Your task to perform on an android device: find photos in the google photos app Image 0: 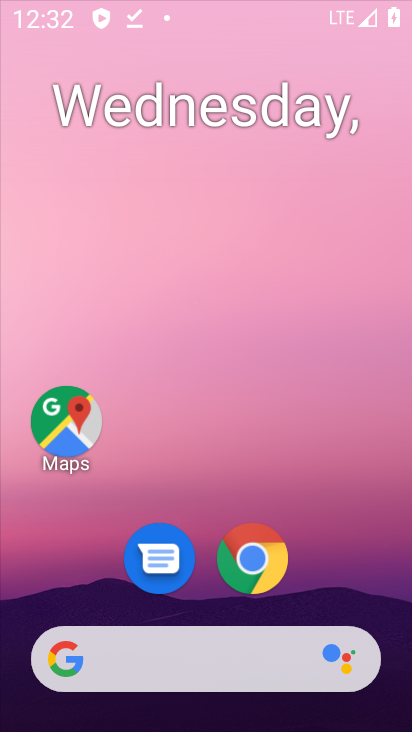
Step 0: click (296, 124)
Your task to perform on an android device: find photos in the google photos app Image 1: 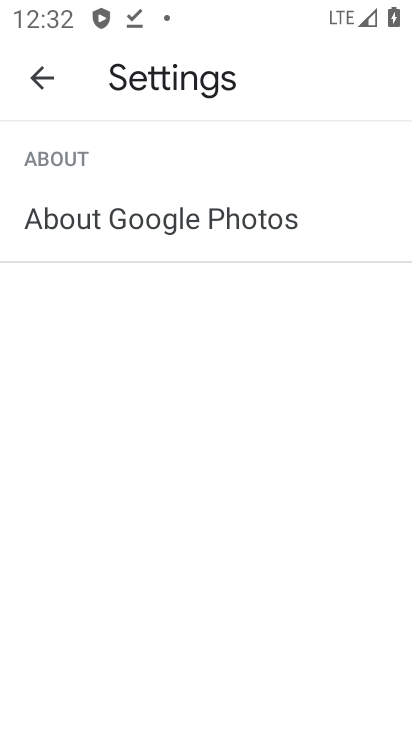
Step 1: click (37, 67)
Your task to perform on an android device: find photos in the google photos app Image 2: 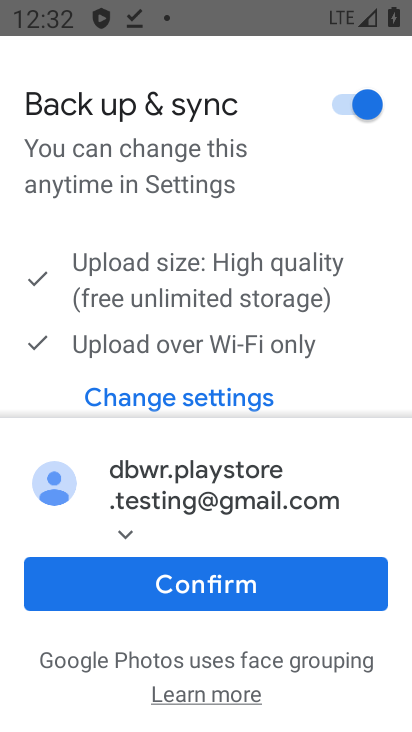
Step 2: press back button
Your task to perform on an android device: find photos in the google photos app Image 3: 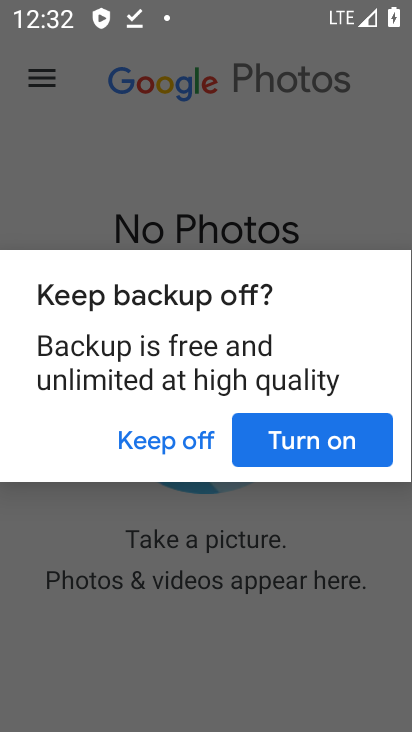
Step 3: click (148, 453)
Your task to perform on an android device: find photos in the google photos app Image 4: 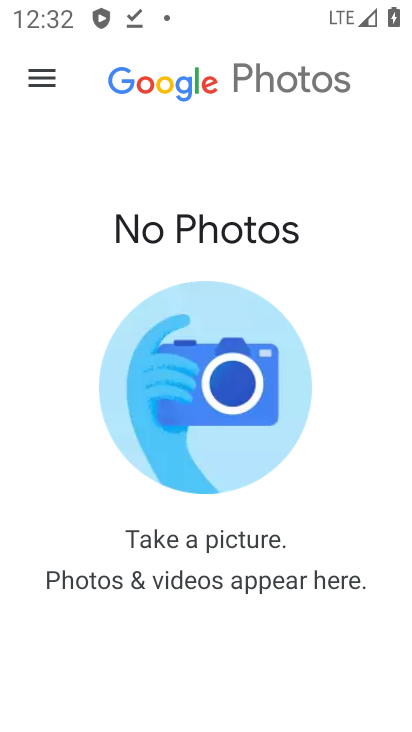
Step 4: press home button
Your task to perform on an android device: find photos in the google photos app Image 5: 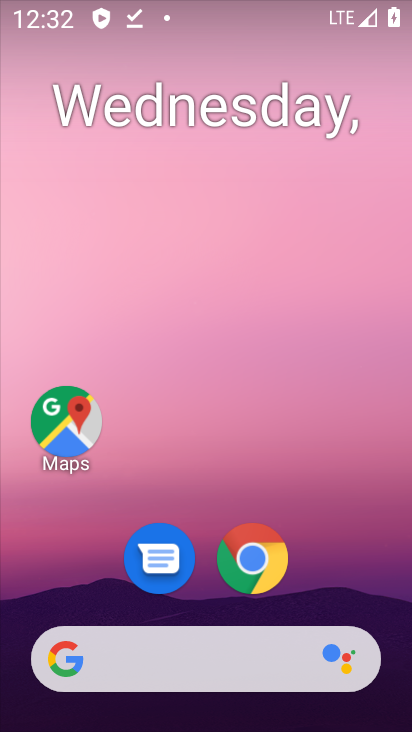
Step 5: drag from (231, 705) to (157, 102)
Your task to perform on an android device: find photos in the google photos app Image 6: 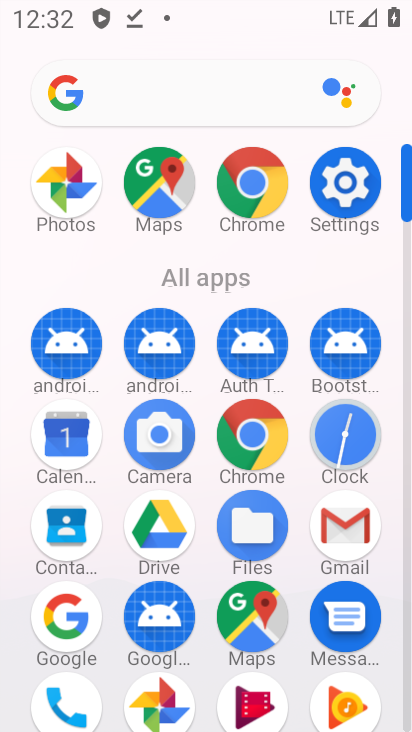
Step 6: click (62, 192)
Your task to perform on an android device: find photos in the google photos app Image 7: 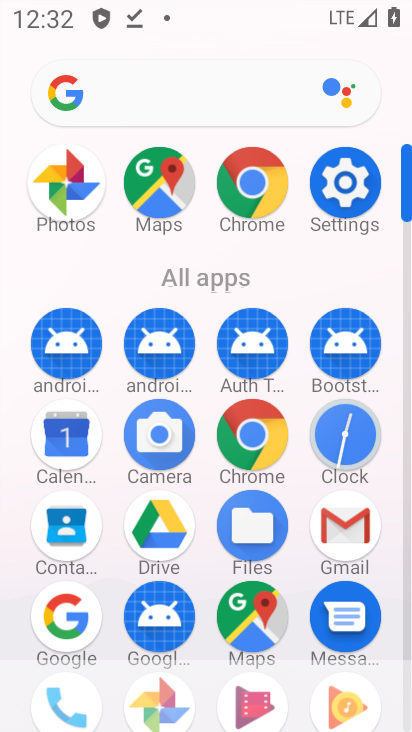
Step 7: click (74, 193)
Your task to perform on an android device: find photos in the google photos app Image 8: 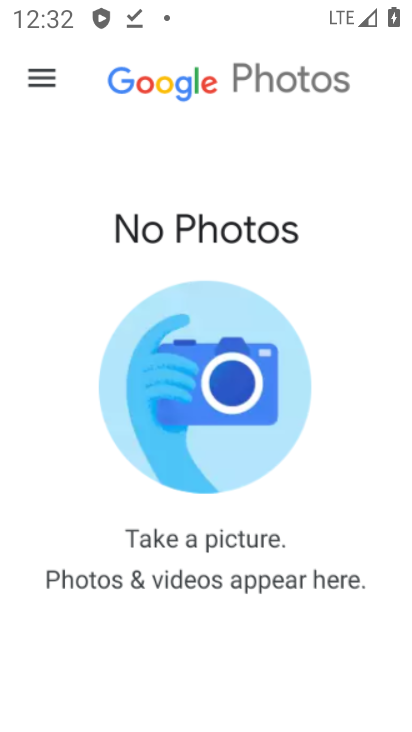
Step 8: click (83, 190)
Your task to perform on an android device: find photos in the google photos app Image 9: 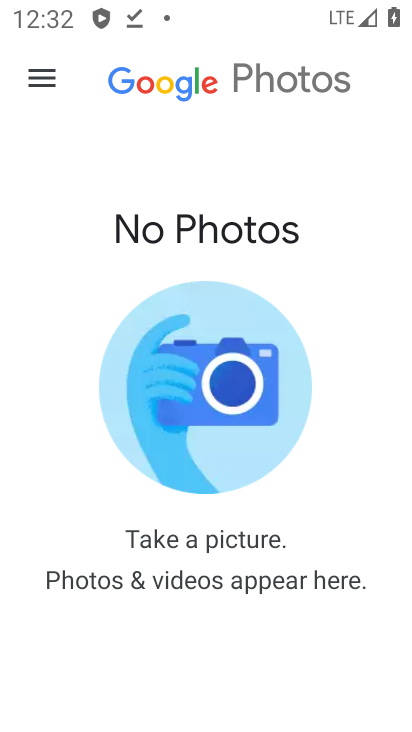
Step 9: task complete